Your task to perform on an android device: turn off wifi Image 0: 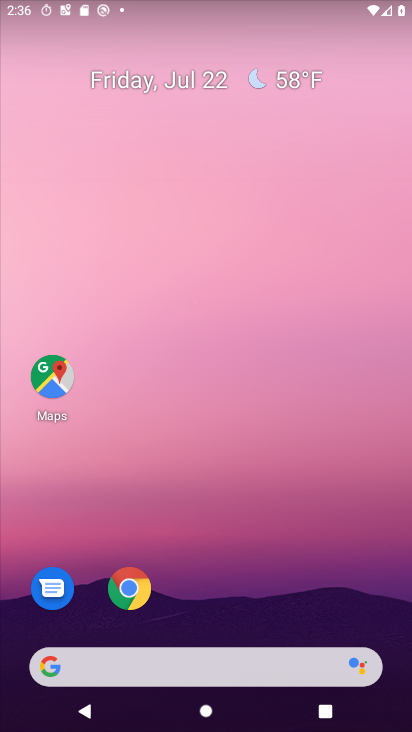
Step 0: drag from (179, 0) to (120, 417)
Your task to perform on an android device: turn off wifi Image 1: 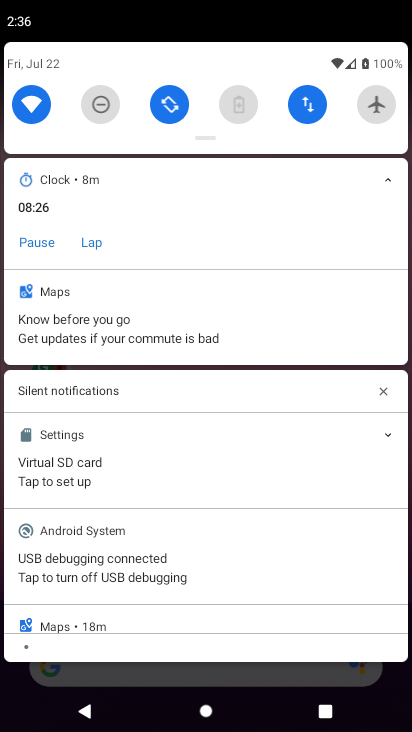
Step 1: click (27, 98)
Your task to perform on an android device: turn off wifi Image 2: 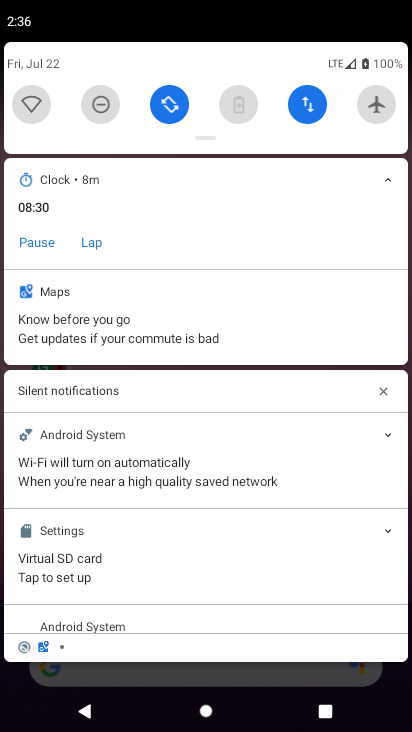
Step 2: task complete